Your task to perform on an android device: Go to battery settings Image 0: 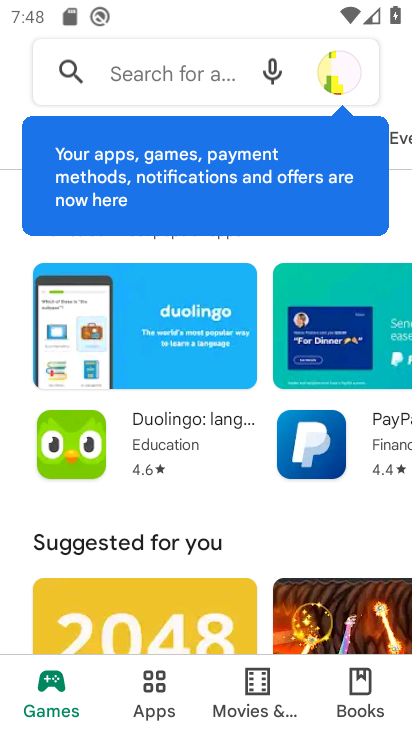
Step 0: press home button
Your task to perform on an android device: Go to battery settings Image 1: 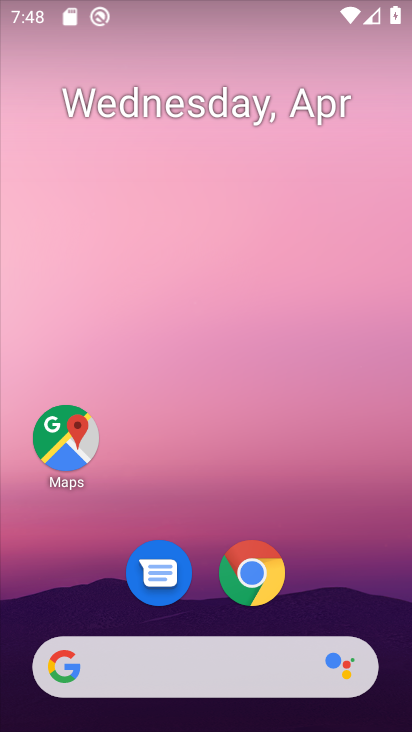
Step 1: drag from (129, 409) to (238, 252)
Your task to perform on an android device: Go to battery settings Image 2: 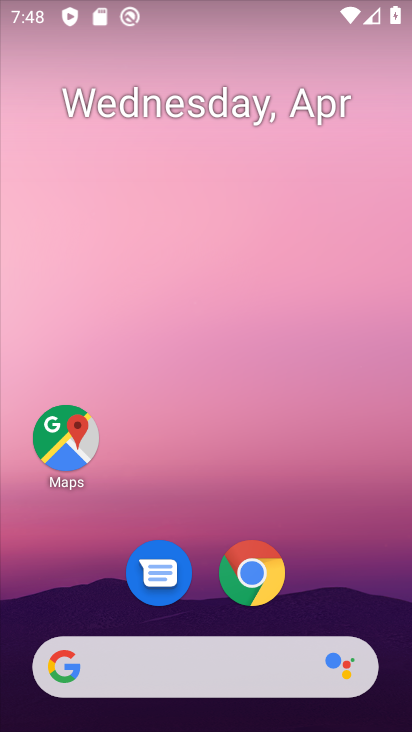
Step 2: drag from (33, 696) to (227, 296)
Your task to perform on an android device: Go to battery settings Image 3: 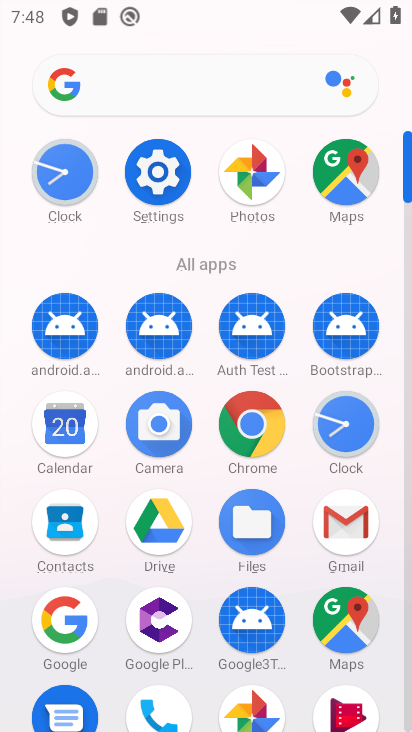
Step 3: click (162, 164)
Your task to perform on an android device: Go to battery settings Image 4: 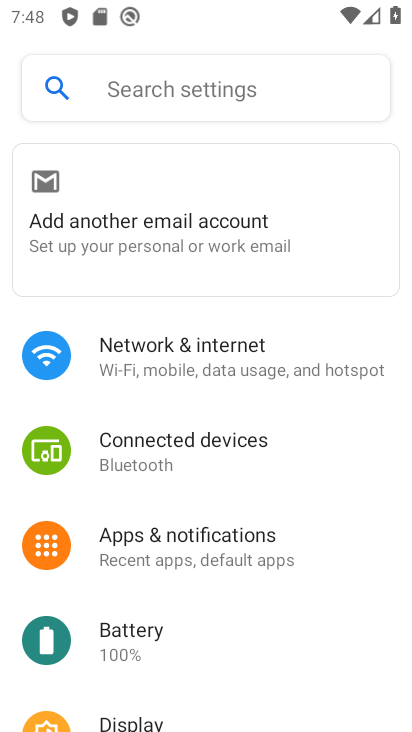
Step 4: click (145, 642)
Your task to perform on an android device: Go to battery settings Image 5: 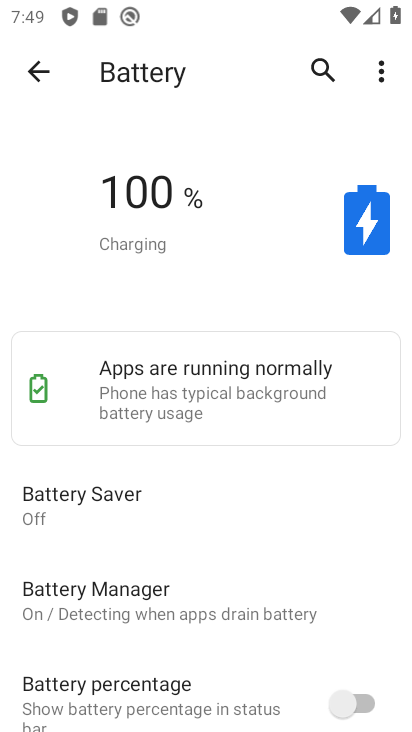
Step 5: drag from (24, 546) to (127, 279)
Your task to perform on an android device: Go to battery settings Image 6: 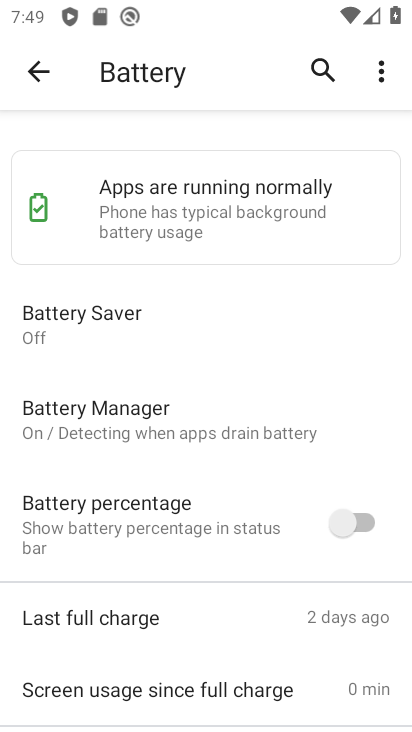
Step 6: drag from (39, 669) to (152, 368)
Your task to perform on an android device: Go to battery settings Image 7: 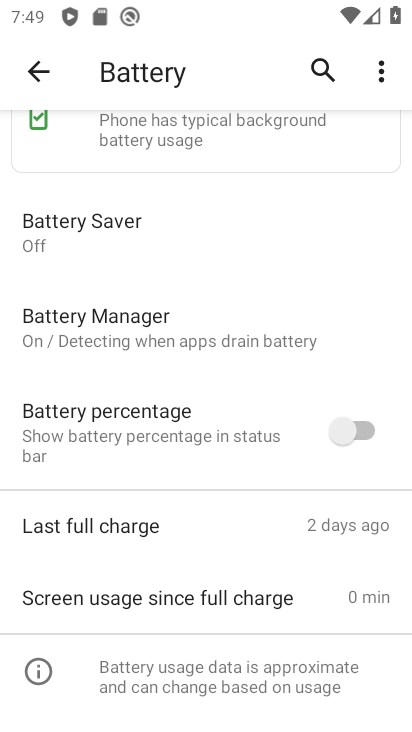
Step 7: drag from (171, 613) to (279, 313)
Your task to perform on an android device: Go to battery settings Image 8: 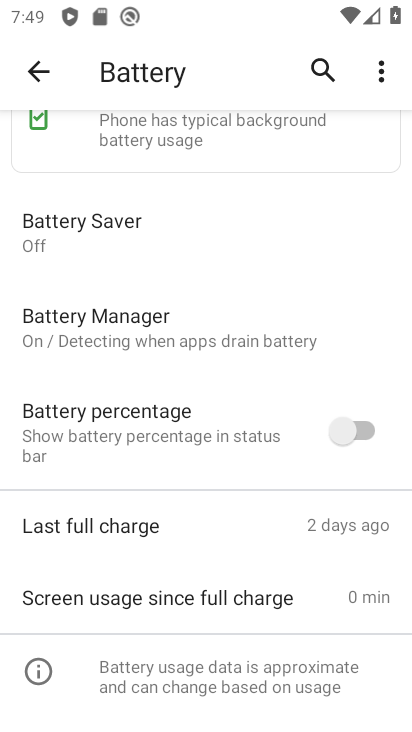
Step 8: drag from (266, 178) to (201, 629)
Your task to perform on an android device: Go to battery settings Image 9: 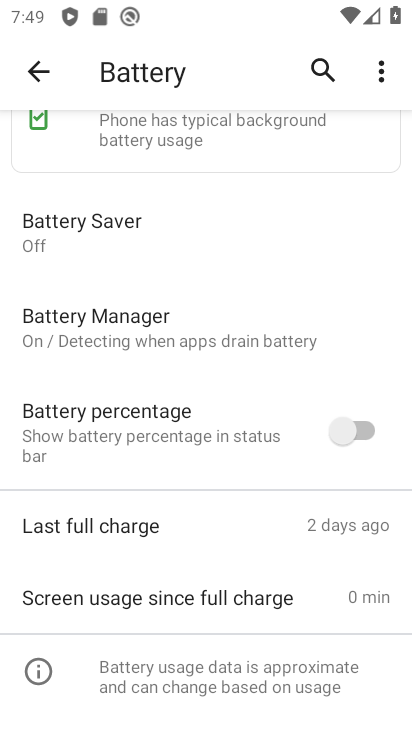
Step 9: drag from (171, 289) to (130, 611)
Your task to perform on an android device: Go to battery settings Image 10: 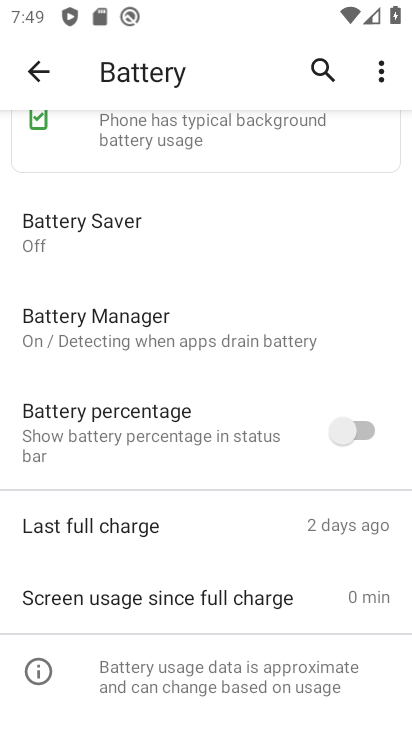
Step 10: drag from (116, 270) to (80, 650)
Your task to perform on an android device: Go to battery settings Image 11: 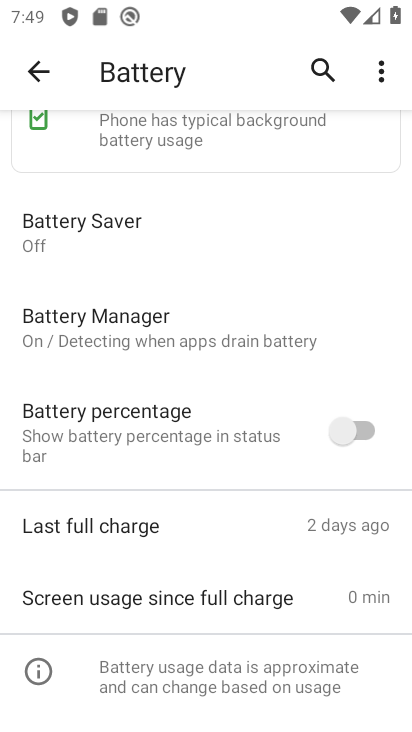
Step 11: drag from (141, 161) to (108, 706)
Your task to perform on an android device: Go to battery settings Image 12: 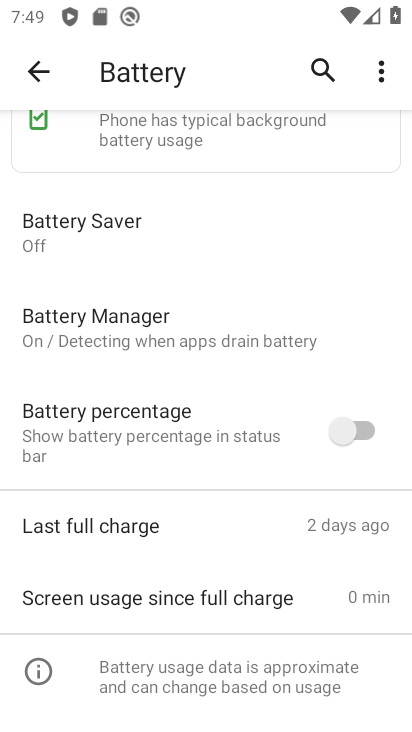
Step 12: drag from (65, 213) to (82, 569)
Your task to perform on an android device: Go to battery settings Image 13: 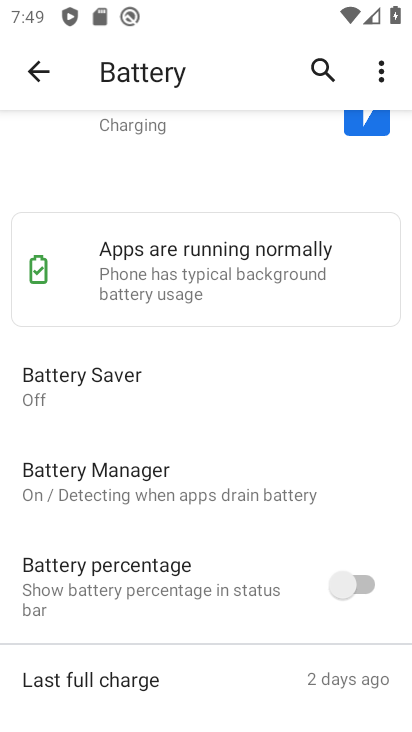
Step 13: drag from (148, 212) to (105, 660)
Your task to perform on an android device: Go to battery settings Image 14: 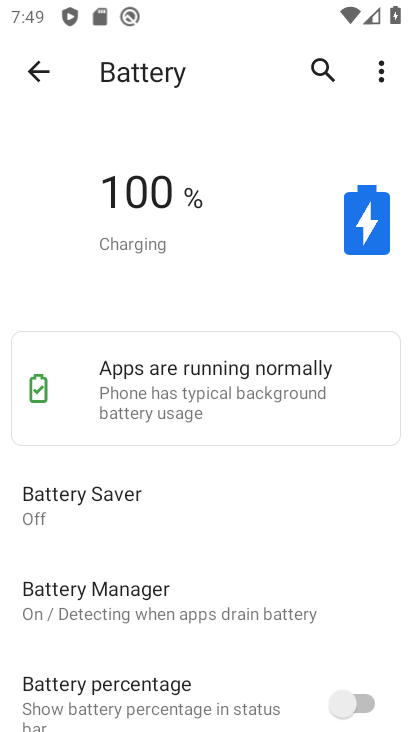
Step 14: click (145, 277)
Your task to perform on an android device: Go to battery settings Image 15: 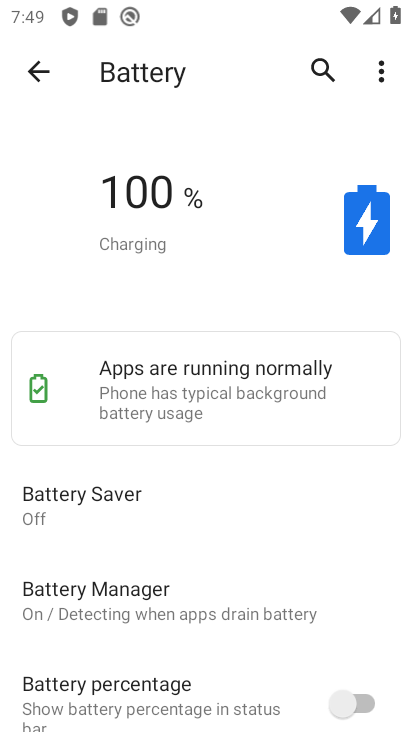
Step 15: click (255, 198)
Your task to perform on an android device: Go to battery settings Image 16: 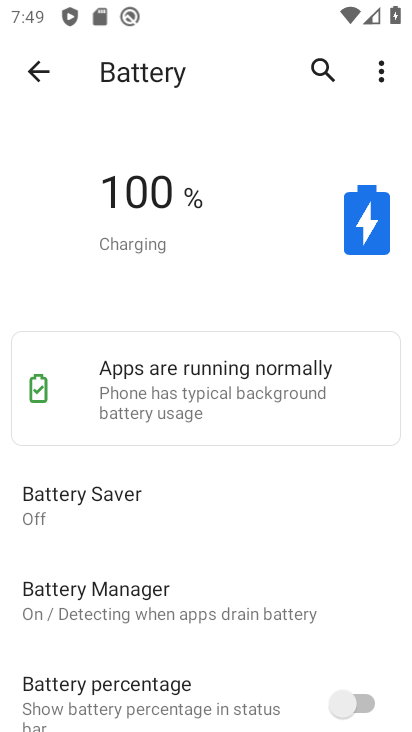
Step 16: task complete